Your task to perform on an android device: set the stopwatch Image 0: 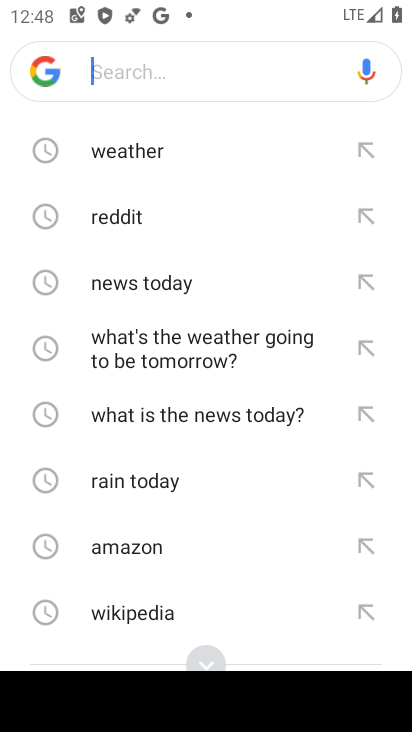
Step 0: press home button
Your task to perform on an android device: set the stopwatch Image 1: 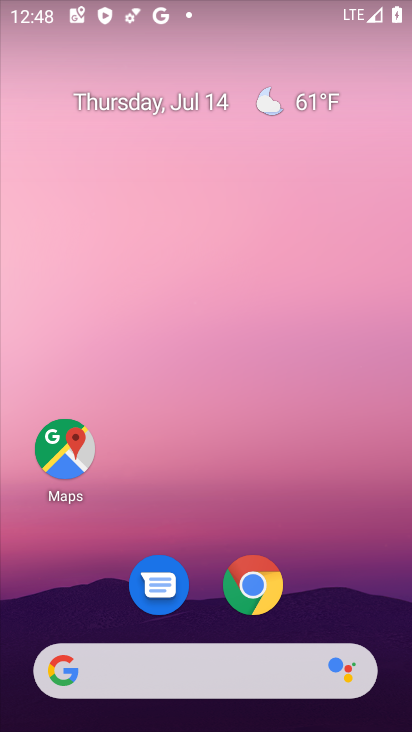
Step 1: drag from (321, 587) to (335, 60)
Your task to perform on an android device: set the stopwatch Image 2: 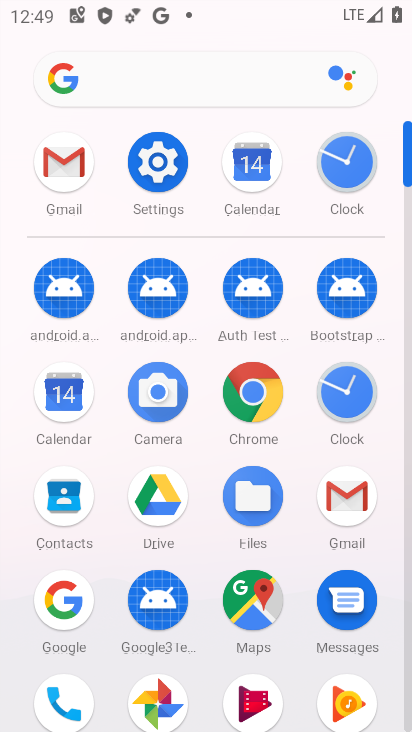
Step 2: click (353, 163)
Your task to perform on an android device: set the stopwatch Image 3: 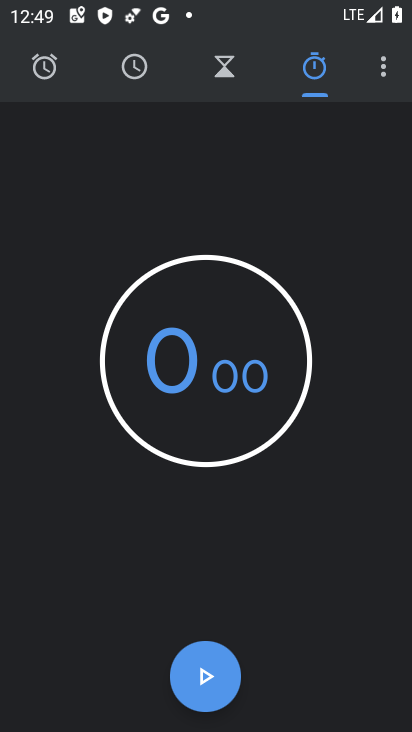
Step 3: click (202, 668)
Your task to perform on an android device: set the stopwatch Image 4: 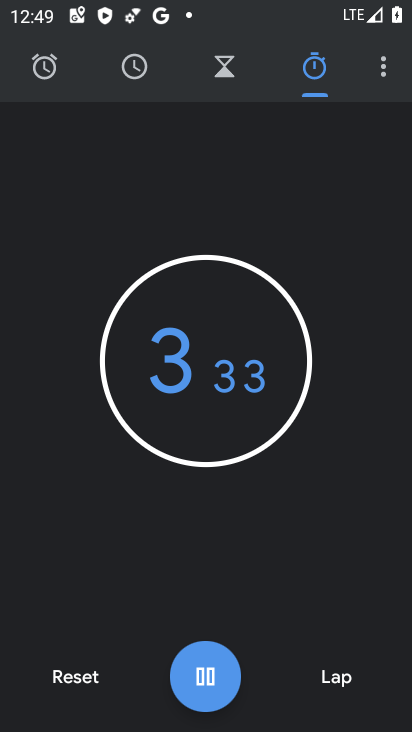
Step 4: click (197, 671)
Your task to perform on an android device: set the stopwatch Image 5: 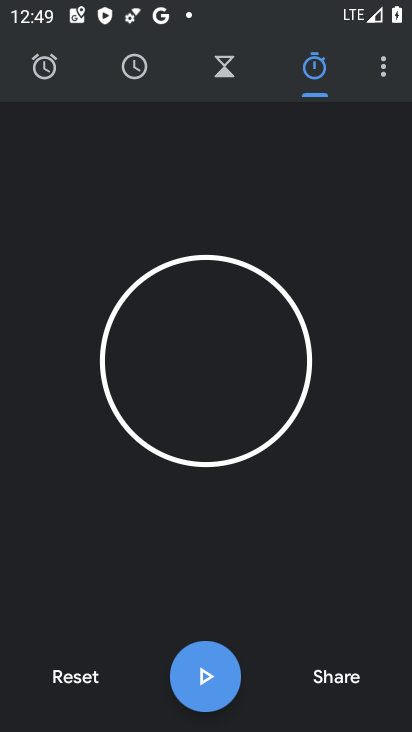
Step 5: task complete